Your task to perform on an android device: turn off notifications in google photos Image 0: 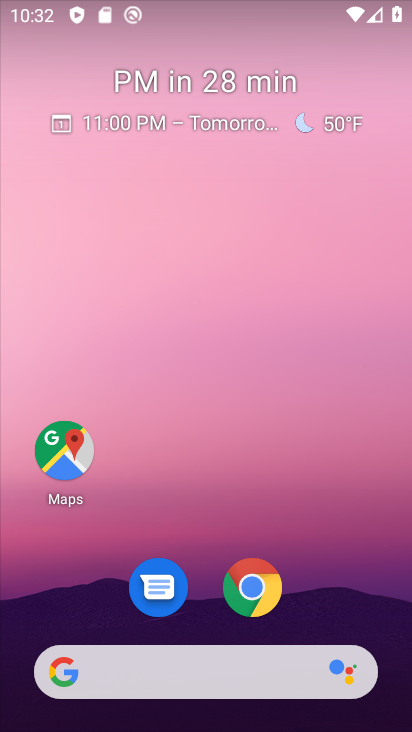
Step 0: drag from (183, 626) to (246, 16)
Your task to perform on an android device: turn off notifications in google photos Image 1: 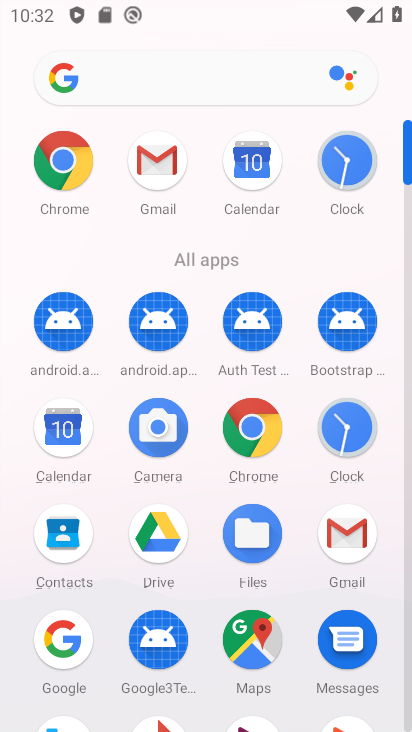
Step 1: drag from (206, 593) to (214, 188)
Your task to perform on an android device: turn off notifications in google photos Image 2: 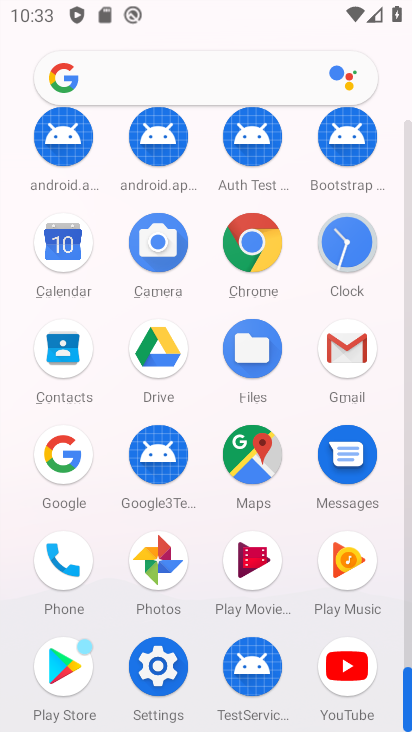
Step 2: click (154, 569)
Your task to perform on an android device: turn off notifications in google photos Image 3: 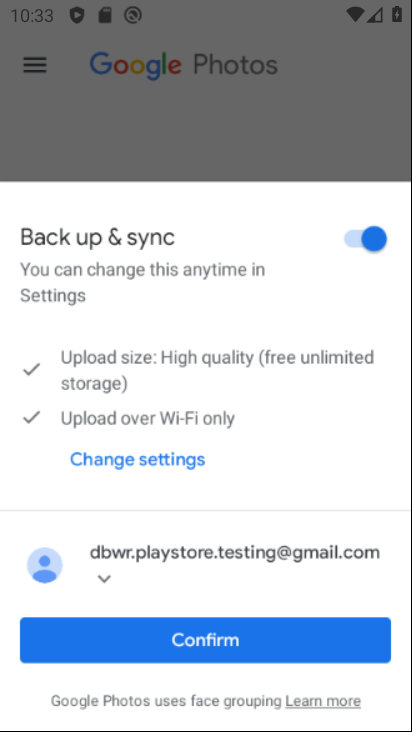
Step 3: click (174, 642)
Your task to perform on an android device: turn off notifications in google photos Image 4: 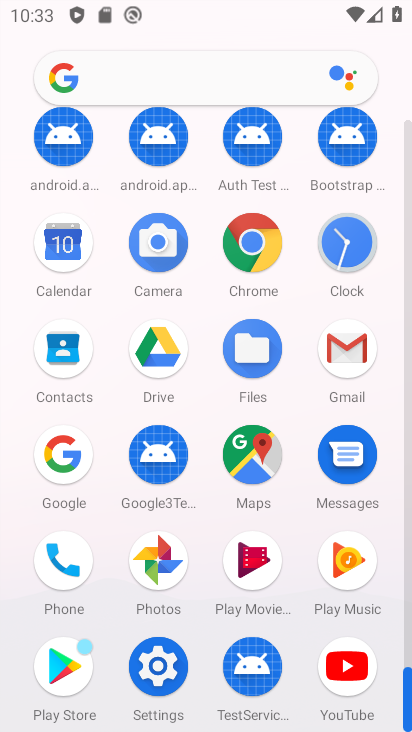
Step 4: click (163, 562)
Your task to perform on an android device: turn off notifications in google photos Image 5: 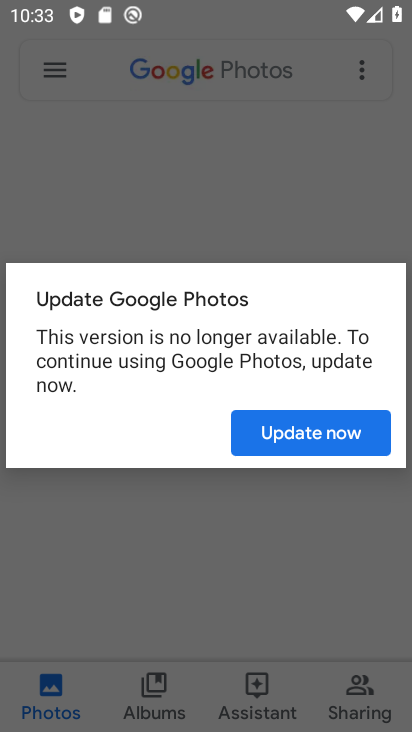
Step 5: click (359, 426)
Your task to perform on an android device: turn off notifications in google photos Image 6: 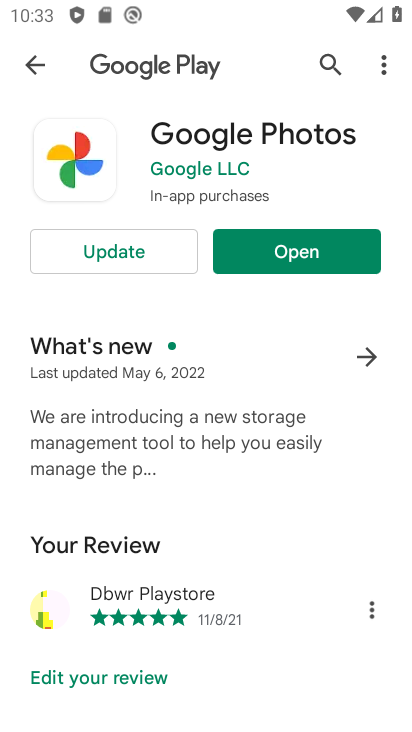
Step 6: click (308, 261)
Your task to perform on an android device: turn off notifications in google photos Image 7: 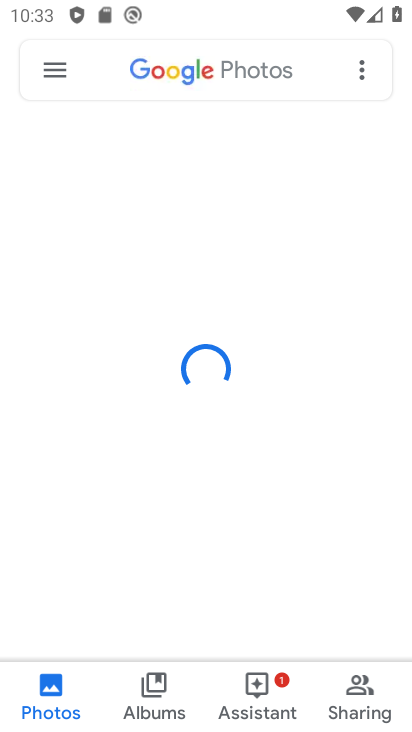
Step 7: click (55, 67)
Your task to perform on an android device: turn off notifications in google photos Image 8: 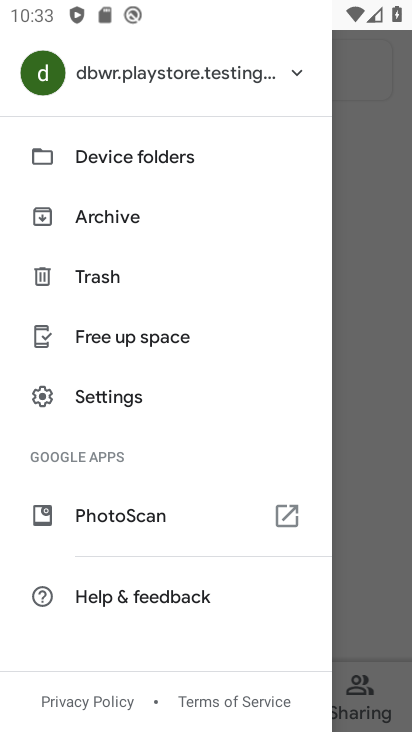
Step 8: click (119, 387)
Your task to perform on an android device: turn off notifications in google photos Image 9: 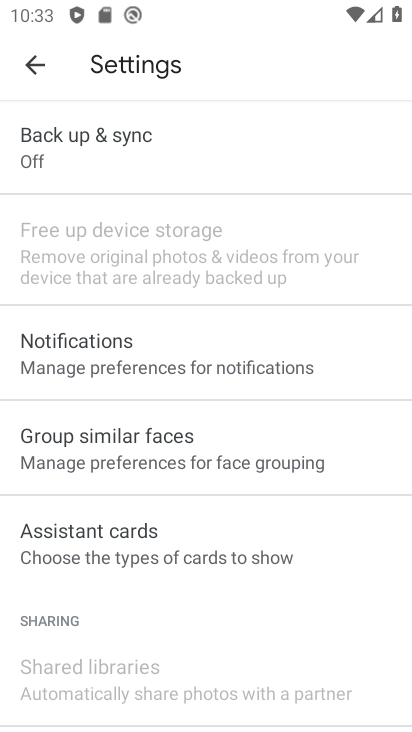
Step 9: click (115, 359)
Your task to perform on an android device: turn off notifications in google photos Image 10: 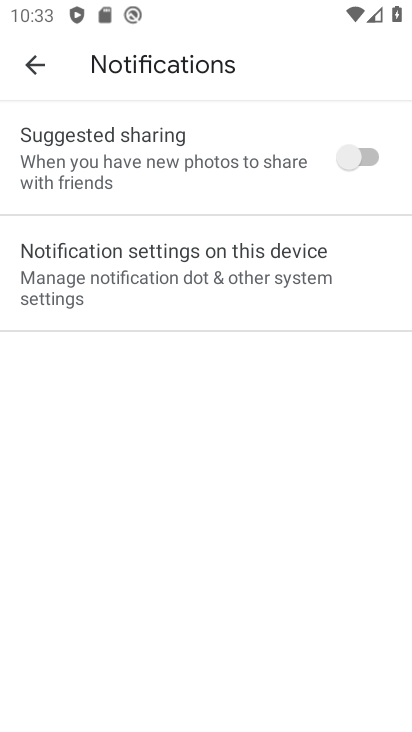
Step 10: click (274, 242)
Your task to perform on an android device: turn off notifications in google photos Image 11: 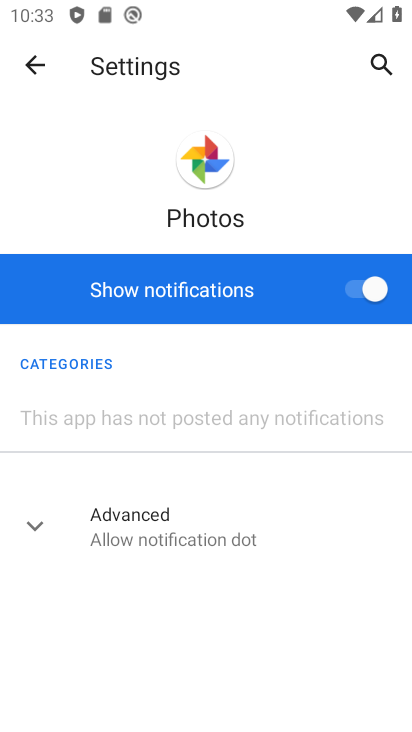
Step 11: click (365, 297)
Your task to perform on an android device: turn off notifications in google photos Image 12: 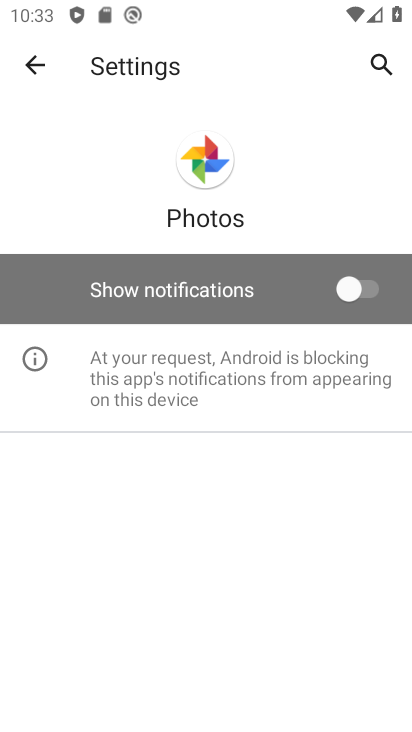
Step 12: task complete